Your task to perform on an android device: add a label to a message in the gmail app Image 0: 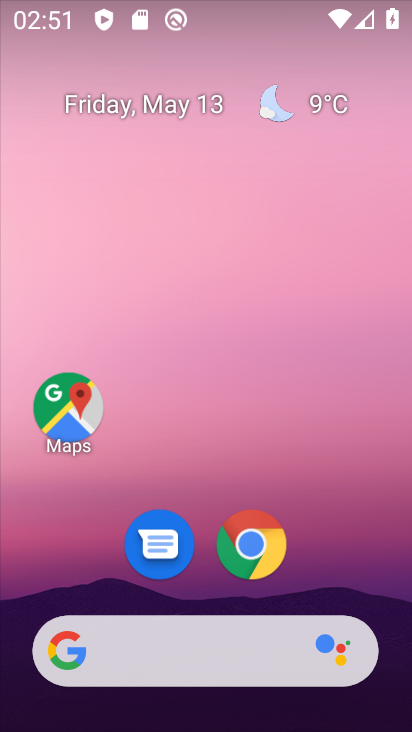
Step 0: drag from (336, 503) to (260, 0)
Your task to perform on an android device: add a label to a message in the gmail app Image 1: 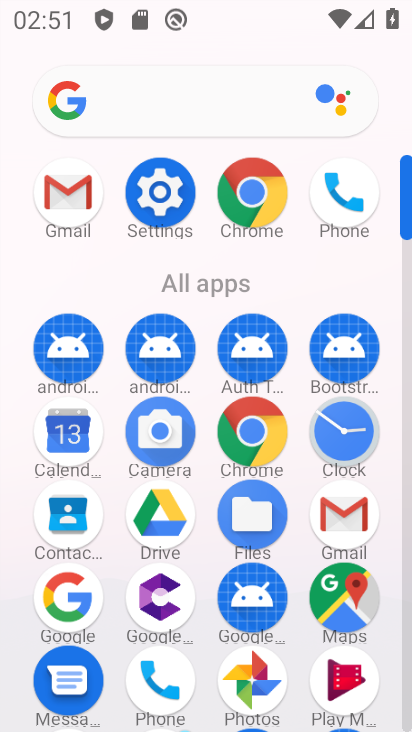
Step 1: drag from (9, 535) to (27, 248)
Your task to perform on an android device: add a label to a message in the gmail app Image 2: 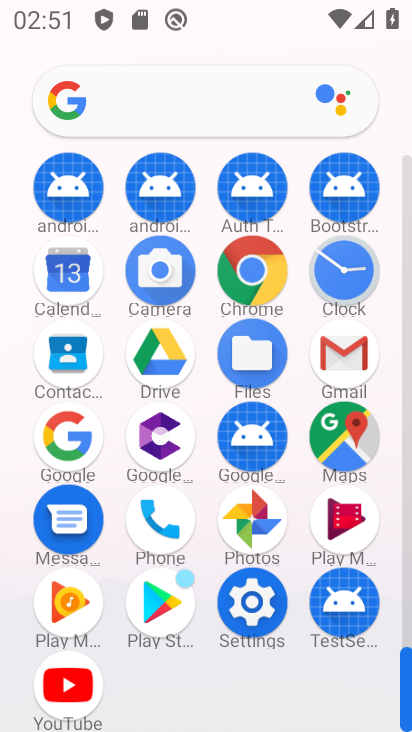
Step 2: click (342, 351)
Your task to perform on an android device: add a label to a message in the gmail app Image 3: 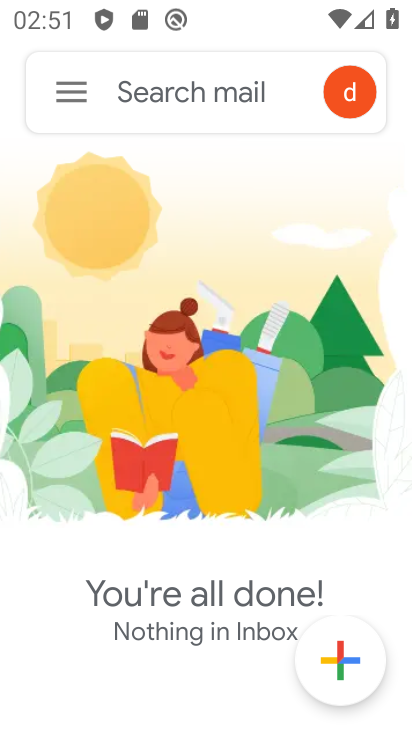
Step 3: click (64, 91)
Your task to perform on an android device: add a label to a message in the gmail app Image 4: 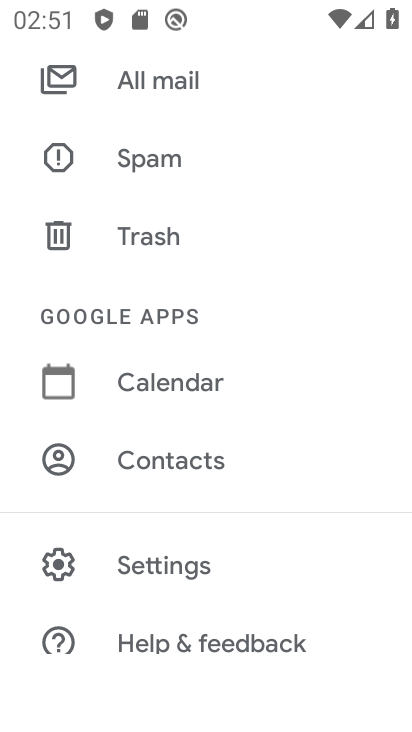
Step 4: click (205, 562)
Your task to perform on an android device: add a label to a message in the gmail app Image 5: 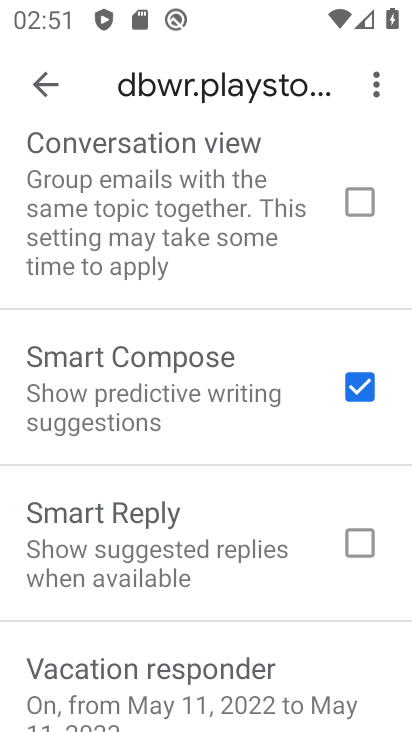
Step 5: drag from (185, 556) to (181, 157)
Your task to perform on an android device: add a label to a message in the gmail app Image 6: 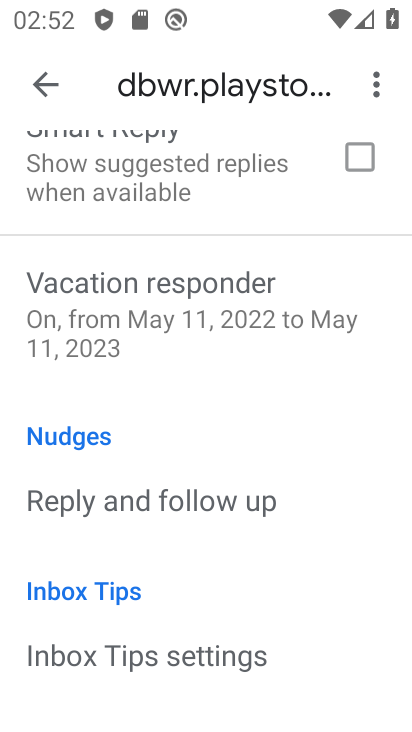
Step 6: drag from (188, 570) to (193, 188)
Your task to perform on an android device: add a label to a message in the gmail app Image 7: 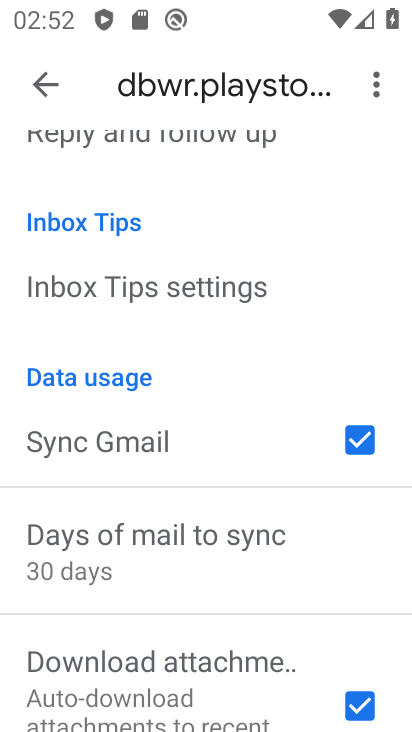
Step 7: drag from (191, 579) to (224, 188)
Your task to perform on an android device: add a label to a message in the gmail app Image 8: 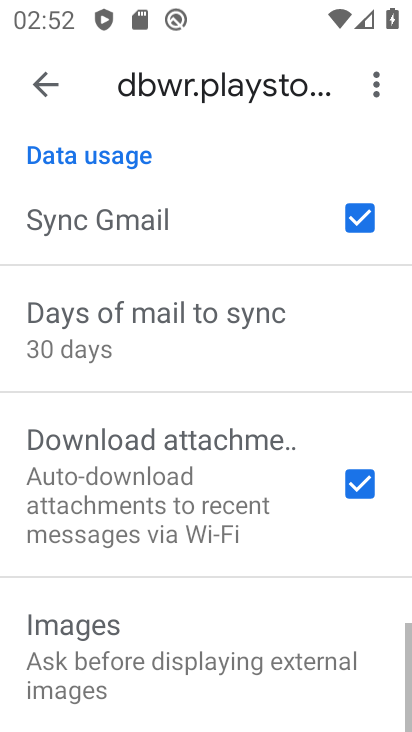
Step 8: drag from (217, 643) to (211, 164)
Your task to perform on an android device: add a label to a message in the gmail app Image 9: 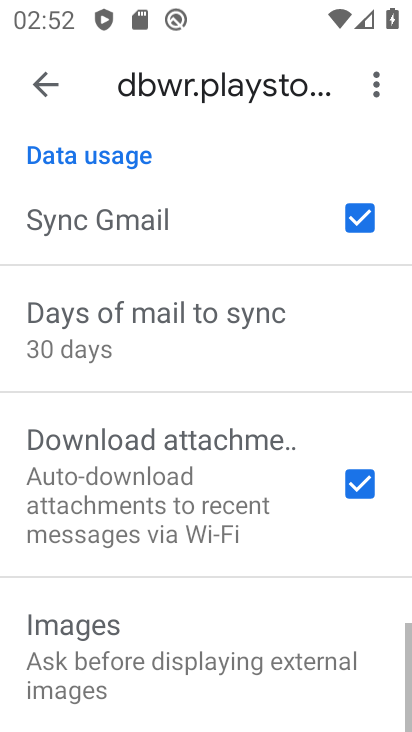
Step 9: drag from (210, 317) to (207, 701)
Your task to perform on an android device: add a label to a message in the gmail app Image 10: 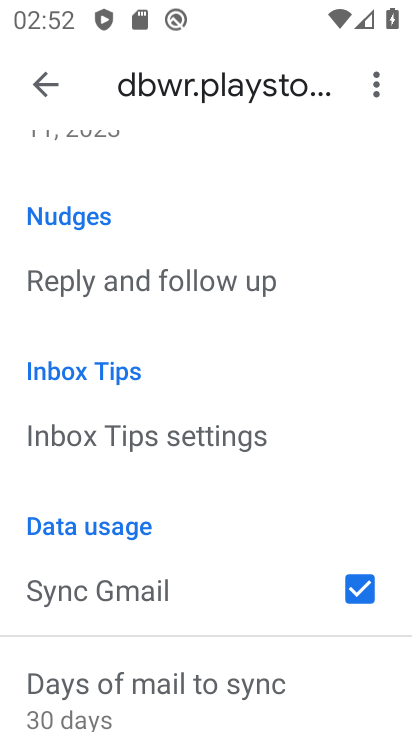
Step 10: drag from (192, 277) to (216, 648)
Your task to perform on an android device: add a label to a message in the gmail app Image 11: 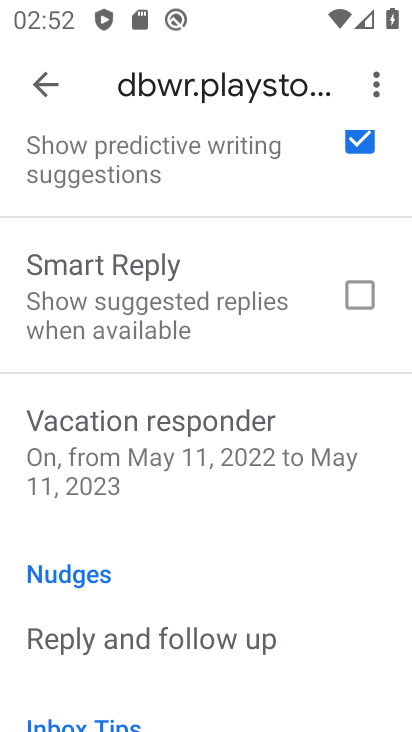
Step 11: drag from (208, 284) to (207, 621)
Your task to perform on an android device: add a label to a message in the gmail app Image 12: 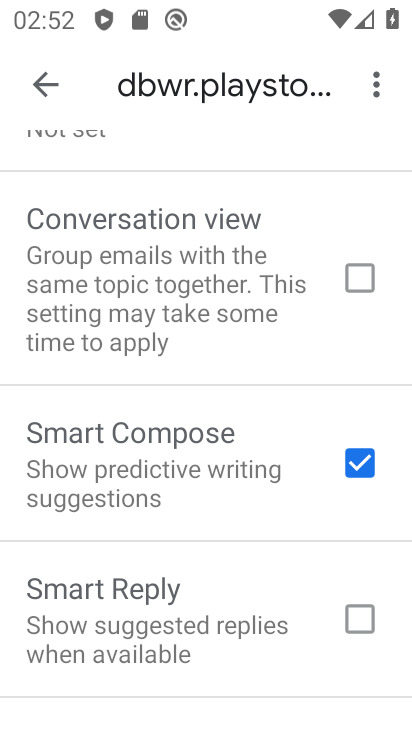
Step 12: drag from (187, 286) to (180, 564)
Your task to perform on an android device: add a label to a message in the gmail app Image 13: 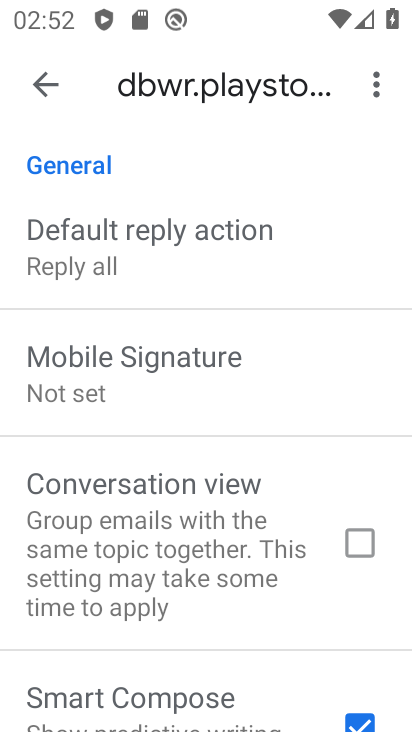
Step 13: drag from (181, 548) to (182, 301)
Your task to perform on an android device: add a label to a message in the gmail app Image 14: 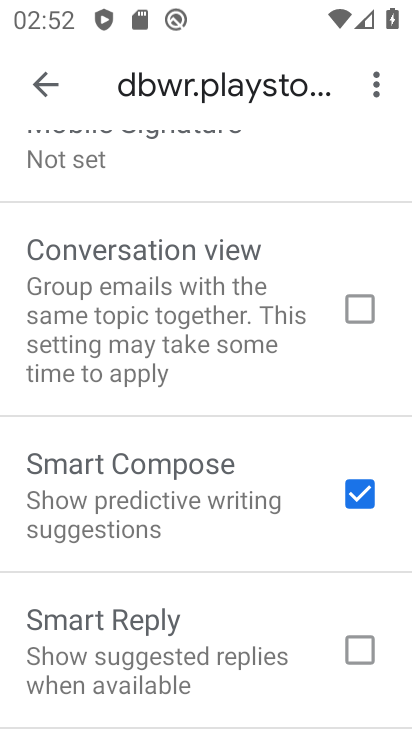
Step 14: click (36, 65)
Your task to perform on an android device: add a label to a message in the gmail app Image 15: 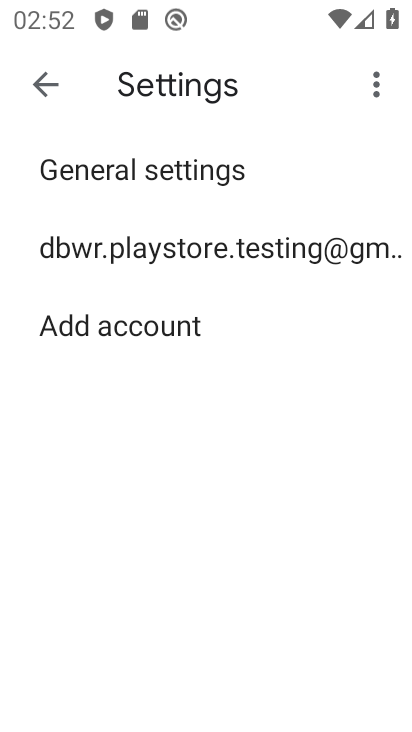
Step 15: click (44, 72)
Your task to perform on an android device: add a label to a message in the gmail app Image 16: 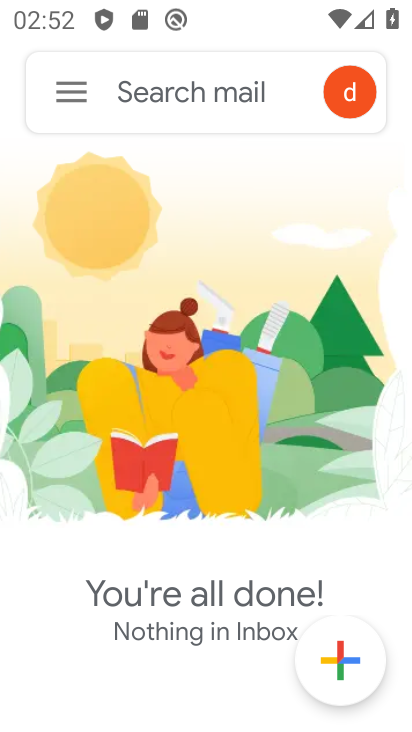
Step 16: click (63, 94)
Your task to perform on an android device: add a label to a message in the gmail app Image 17: 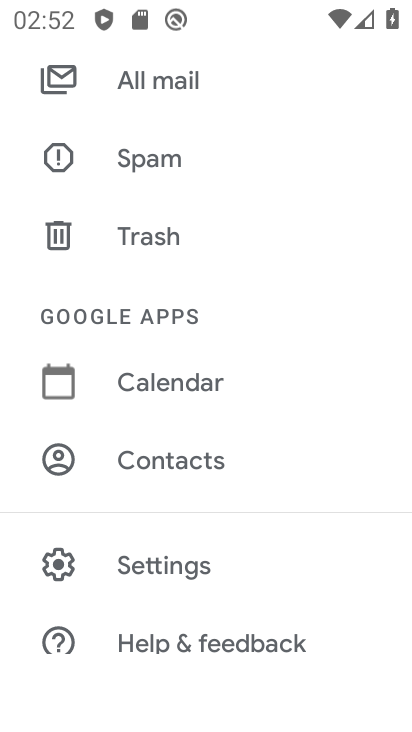
Step 17: drag from (256, 164) to (266, 554)
Your task to perform on an android device: add a label to a message in the gmail app Image 18: 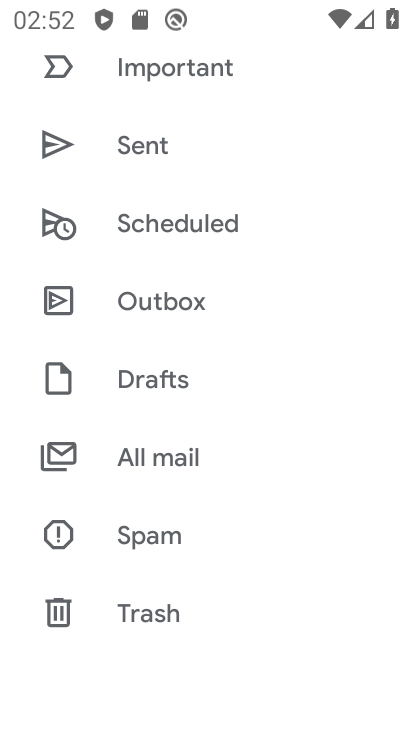
Step 18: drag from (201, 141) to (261, 621)
Your task to perform on an android device: add a label to a message in the gmail app Image 19: 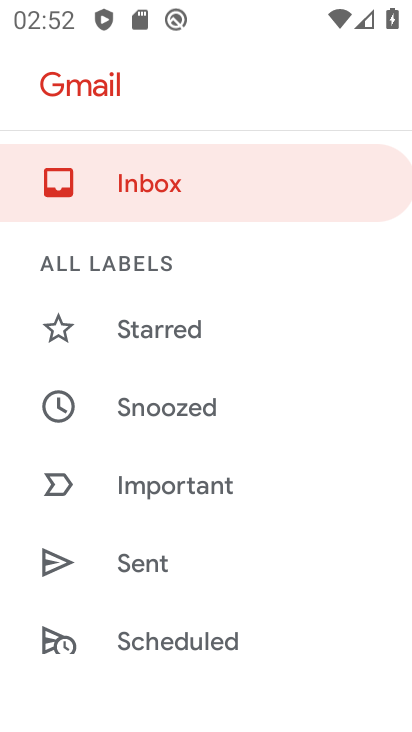
Step 19: click (177, 175)
Your task to perform on an android device: add a label to a message in the gmail app Image 20: 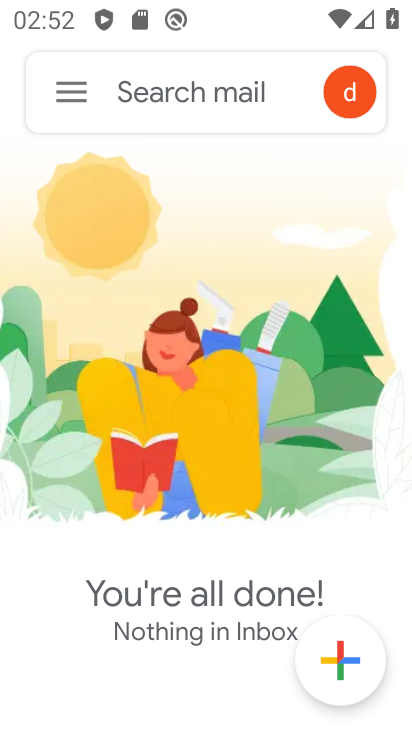
Step 20: click (65, 93)
Your task to perform on an android device: add a label to a message in the gmail app Image 21: 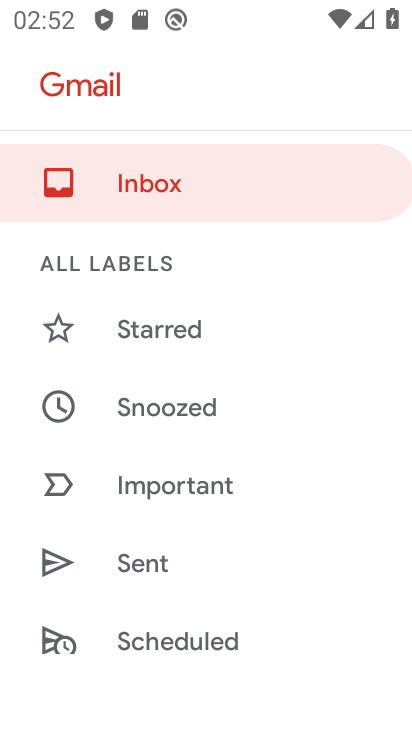
Step 21: drag from (229, 649) to (233, 217)
Your task to perform on an android device: add a label to a message in the gmail app Image 22: 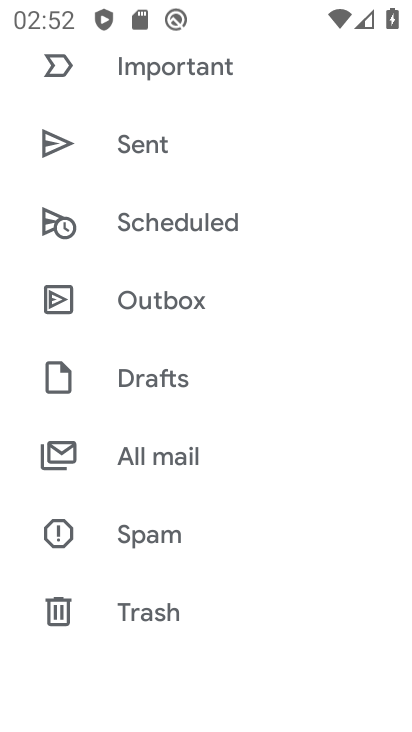
Step 22: drag from (202, 546) to (211, 202)
Your task to perform on an android device: add a label to a message in the gmail app Image 23: 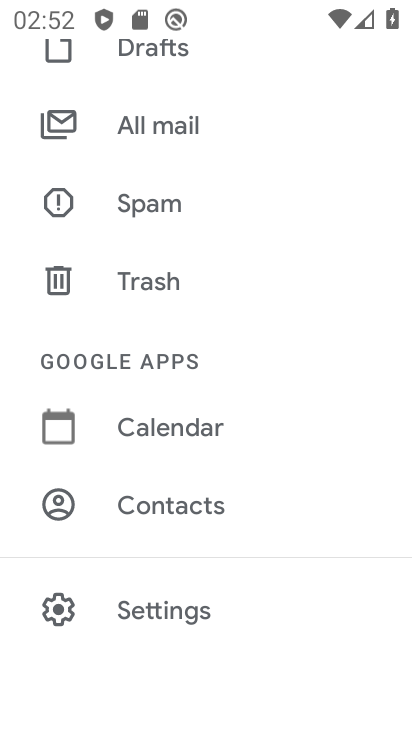
Step 23: click (172, 128)
Your task to perform on an android device: add a label to a message in the gmail app Image 24: 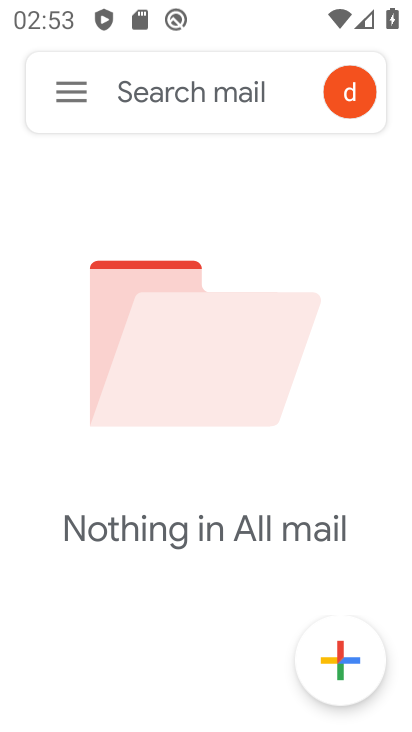
Step 24: task complete